Your task to perform on an android device: Open accessibility settings Image 0: 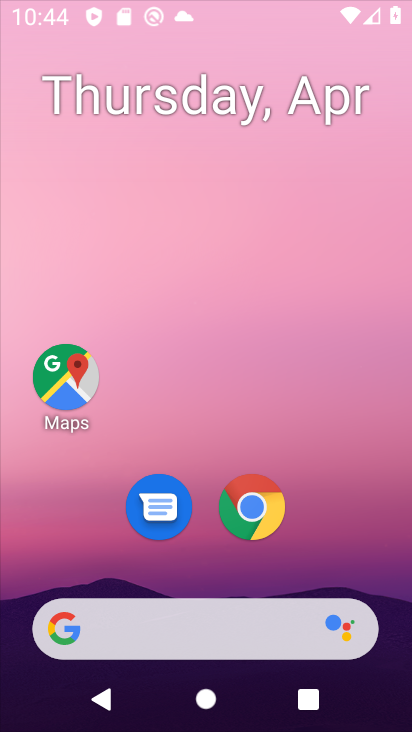
Step 0: click (354, 0)
Your task to perform on an android device: Open accessibility settings Image 1: 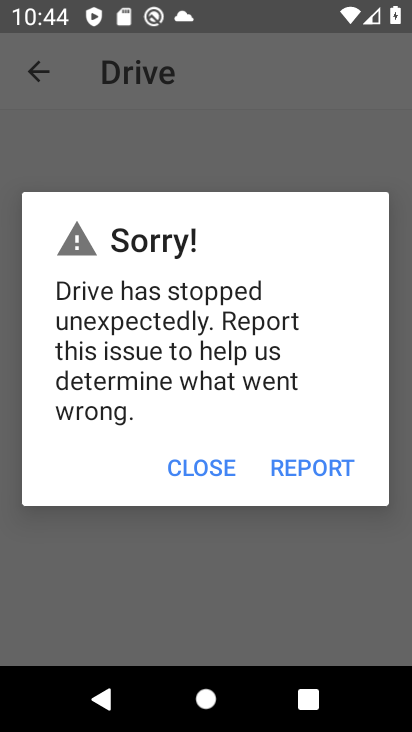
Step 1: press back button
Your task to perform on an android device: Open accessibility settings Image 2: 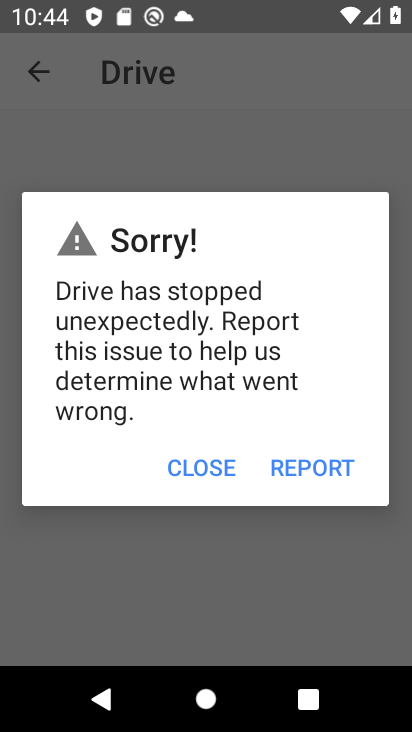
Step 2: press back button
Your task to perform on an android device: Open accessibility settings Image 3: 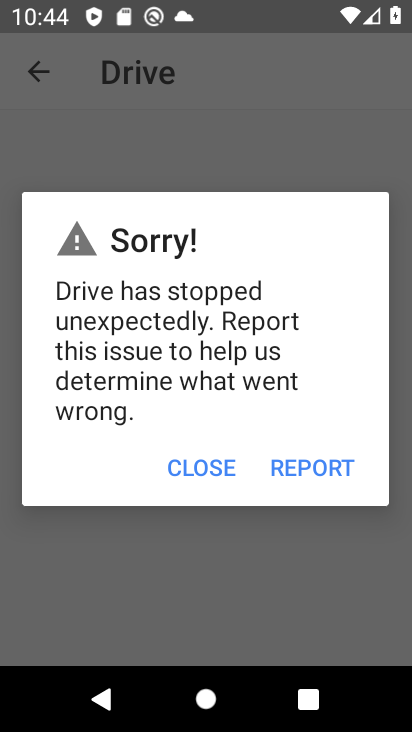
Step 3: press back button
Your task to perform on an android device: Open accessibility settings Image 4: 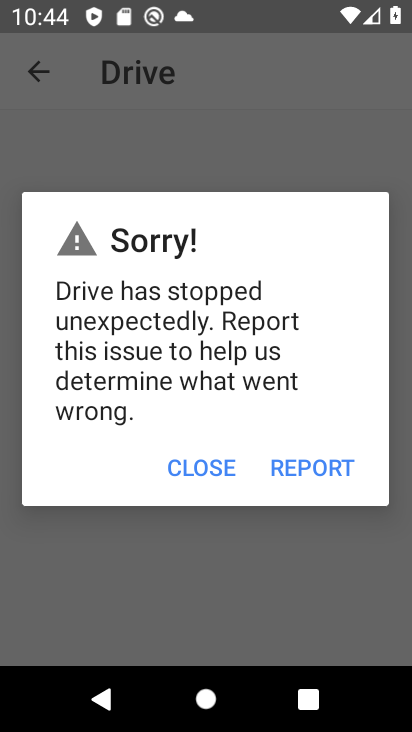
Step 4: press back button
Your task to perform on an android device: Open accessibility settings Image 5: 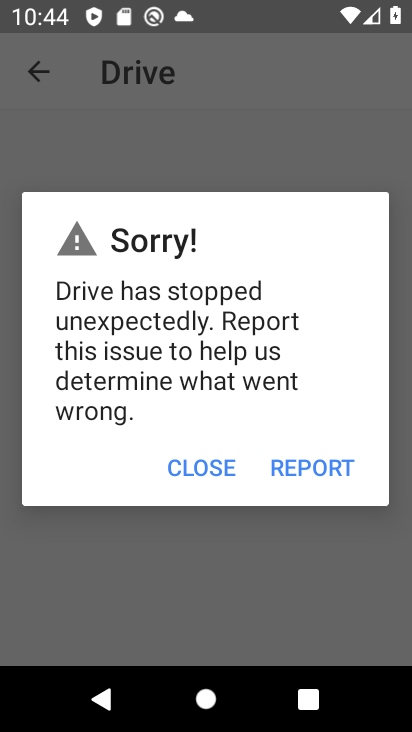
Step 5: click (208, 470)
Your task to perform on an android device: Open accessibility settings Image 6: 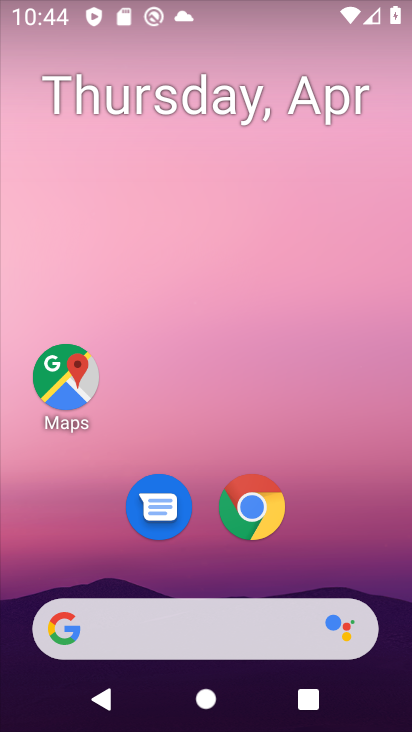
Step 6: drag from (193, 600) to (356, 80)
Your task to perform on an android device: Open accessibility settings Image 7: 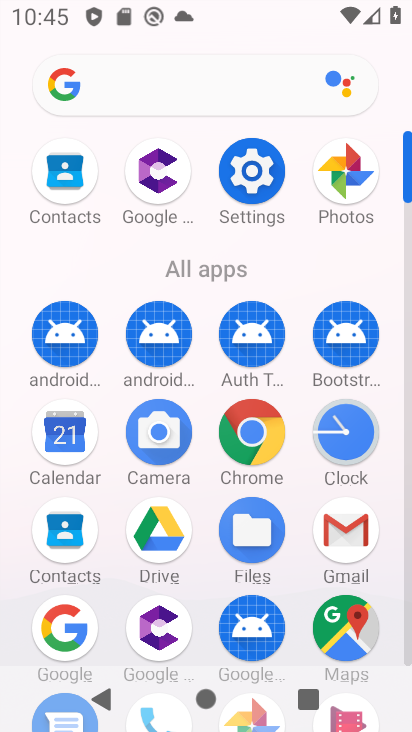
Step 7: click (244, 178)
Your task to perform on an android device: Open accessibility settings Image 8: 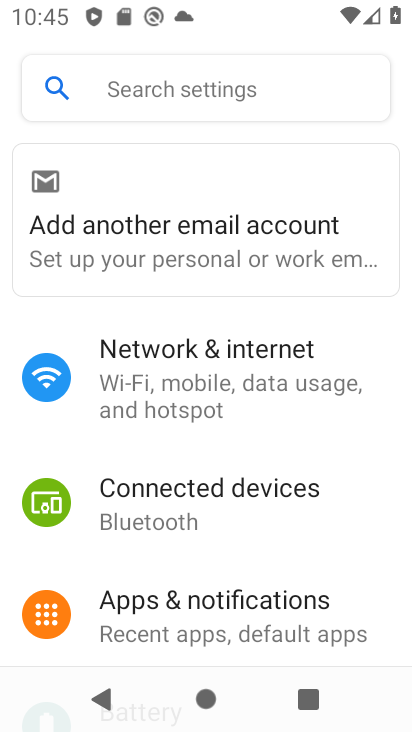
Step 8: drag from (255, 531) to (377, 91)
Your task to perform on an android device: Open accessibility settings Image 9: 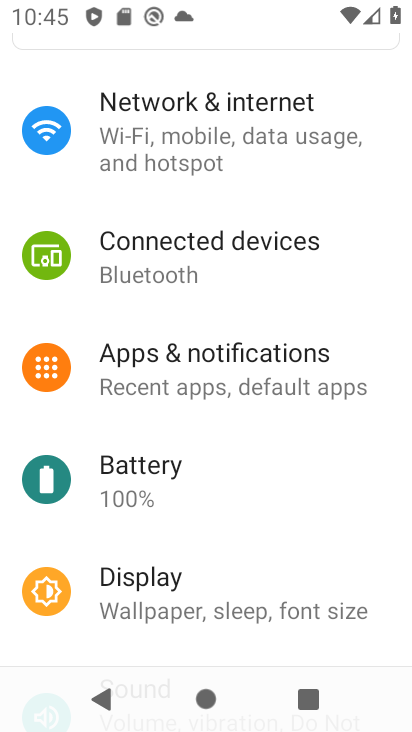
Step 9: drag from (187, 607) to (293, 152)
Your task to perform on an android device: Open accessibility settings Image 10: 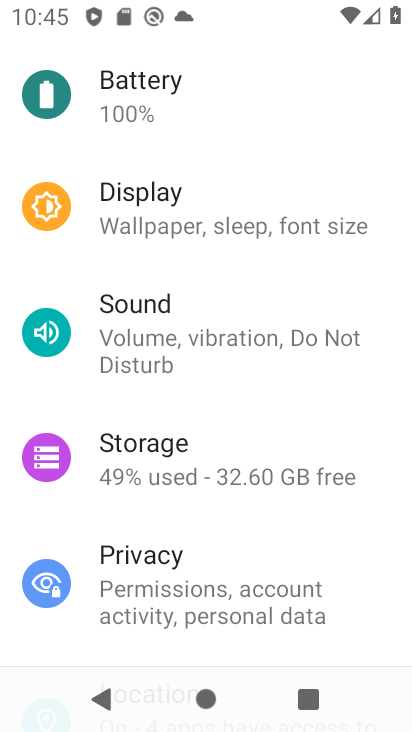
Step 10: drag from (204, 577) to (338, 96)
Your task to perform on an android device: Open accessibility settings Image 11: 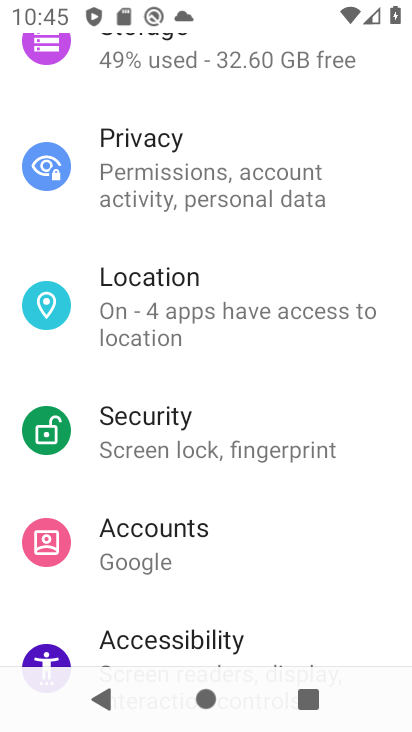
Step 11: drag from (233, 484) to (298, 210)
Your task to perform on an android device: Open accessibility settings Image 12: 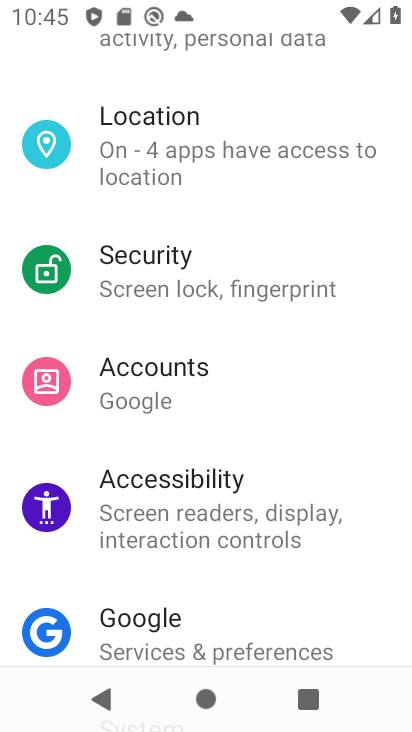
Step 12: click (236, 544)
Your task to perform on an android device: Open accessibility settings Image 13: 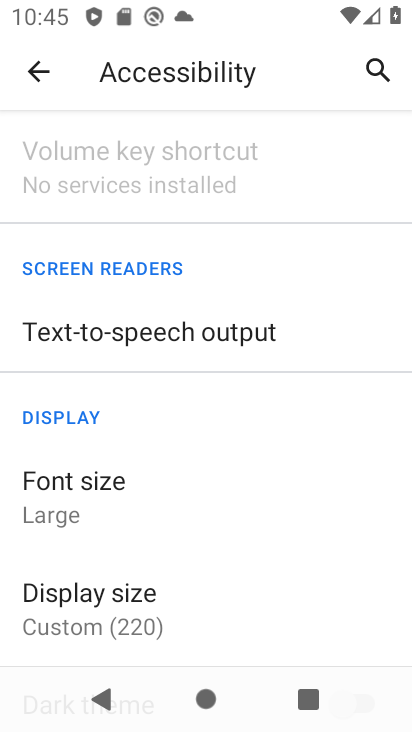
Step 13: task complete